Your task to perform on an android device: toggle sleep mode Image 0: 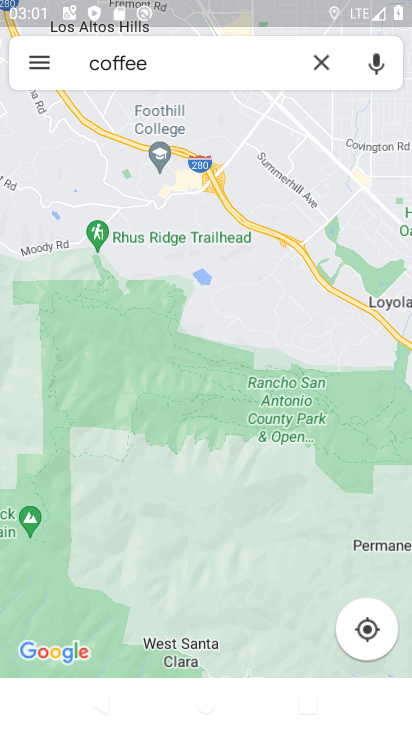
Step 0: press home button
Your task to perform on an android device: toggle sleep mode Image 1: 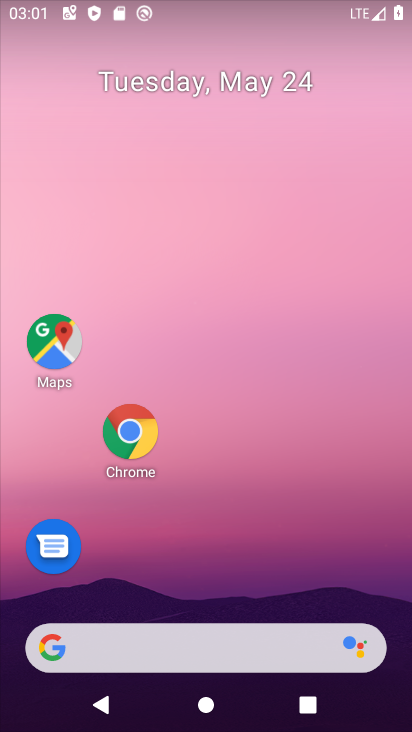
Step 1: drag from (213, 616) to (219, 288)
Your task to perform on an android device: toggle sleep mode Image 2: 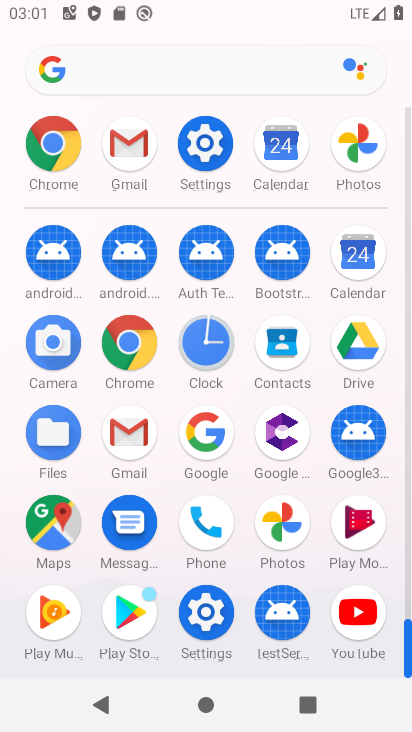
Step 2: click (212, 154)
Your task to perform on an android device: toggle sleep mode Image 3: 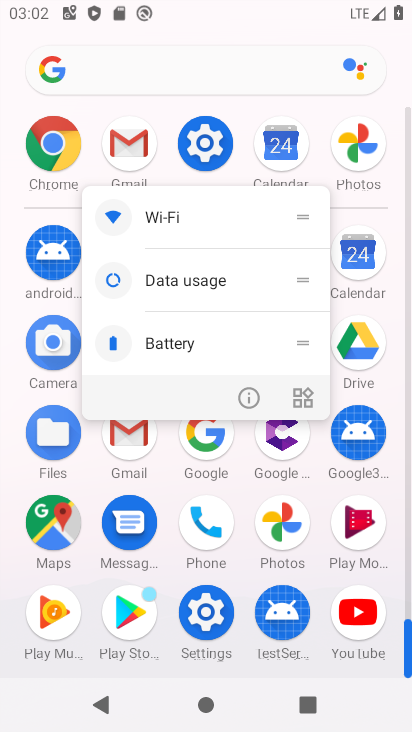
Step 3: click (232, 403)
Your task to perform on an android device: toggle sleep mode Image 4: 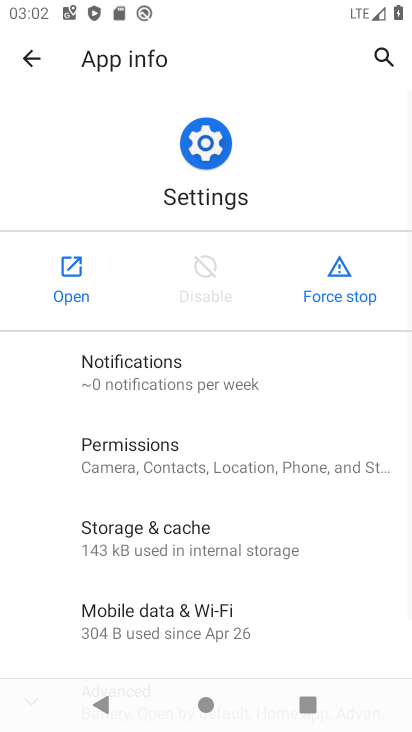
Step 4: click (47, 259)
Your task to perform on an android device: toggle sleep mode Image 5: 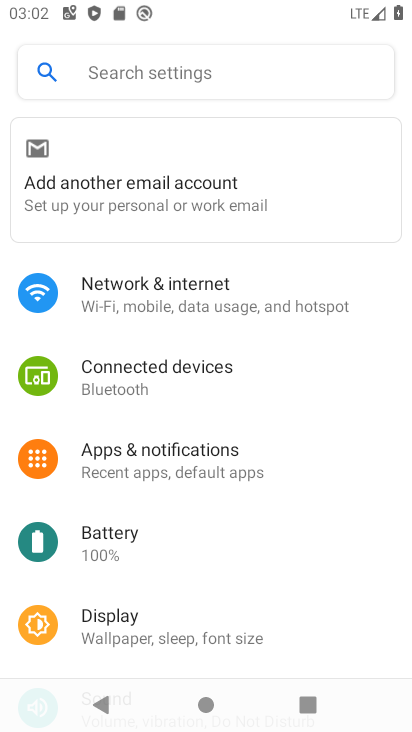
Step 5: click (158, 622)
Your task to perform on an android device: toggle sleep mode Image 6: 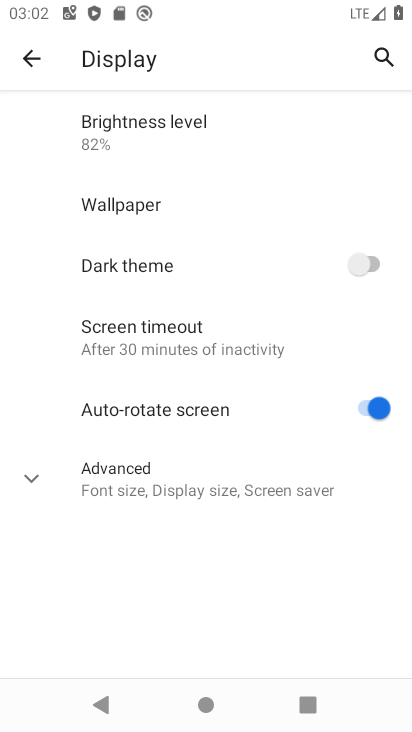
Step 6: click (146, 341)
Your task to perform on an android device: toggle sleep mode Image 7: 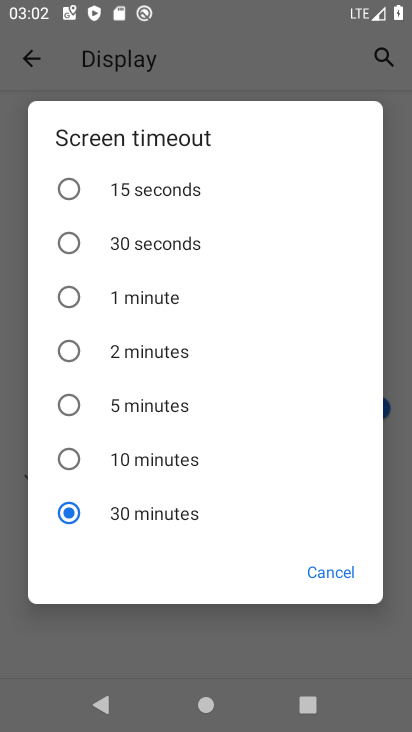
Step 7: task complete